Your task to perform on an android device: remove spam from my inbox in the gmail app Image 0: 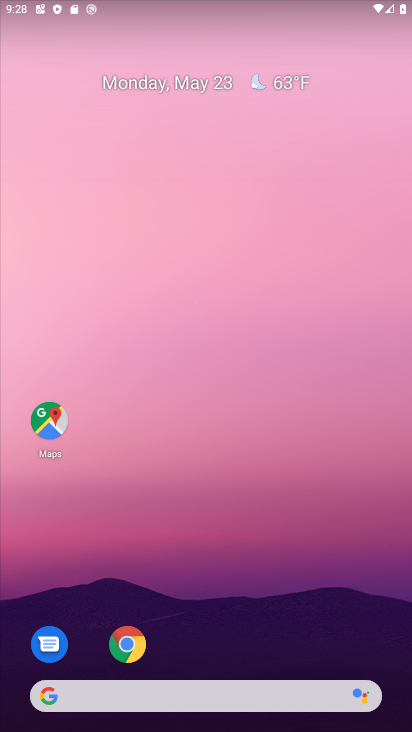
Step 0: press home button
Your task to perform on an android device: remove spam from my inbox in the gmail app Image 1: 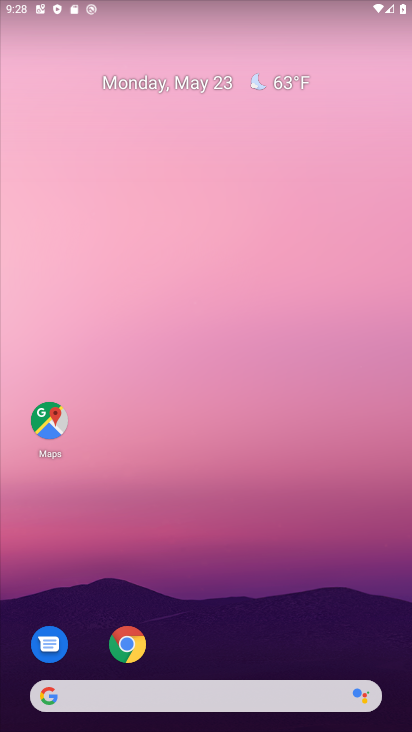
Step 1: drag from (224, 656) to (345, 102)
Your task to perform on an android device: remove spam from my inbox in the gmail app Image 2: 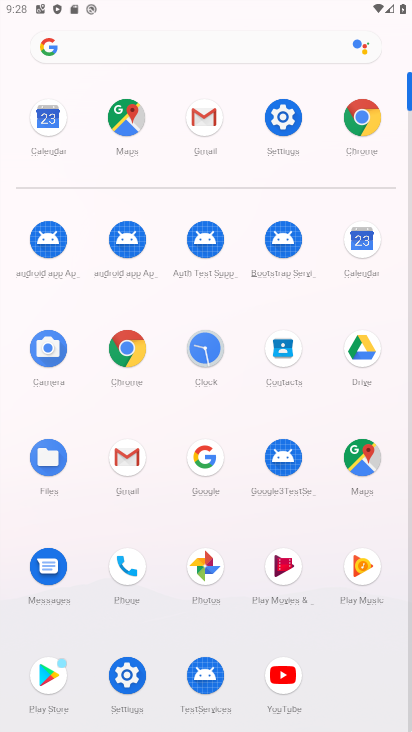
Step 2: click (198, 108)
Your task to perform on an android device: remove spam from my inbox in the gmail app Image 3: 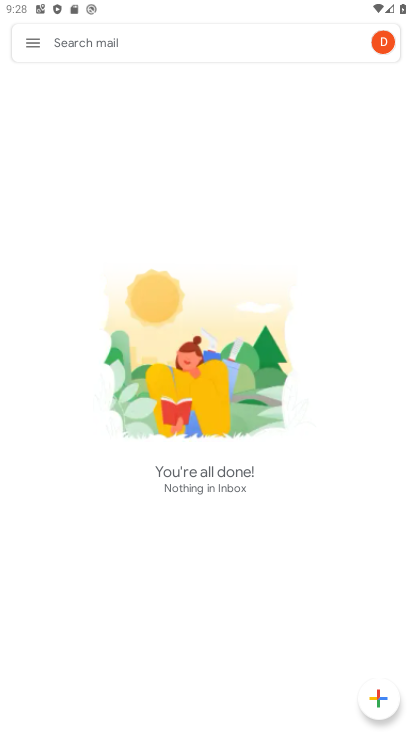
Step 3: click (31, 39)
Your task to perform on an android device: remove spam from my inbox in the gmail app Image 4: 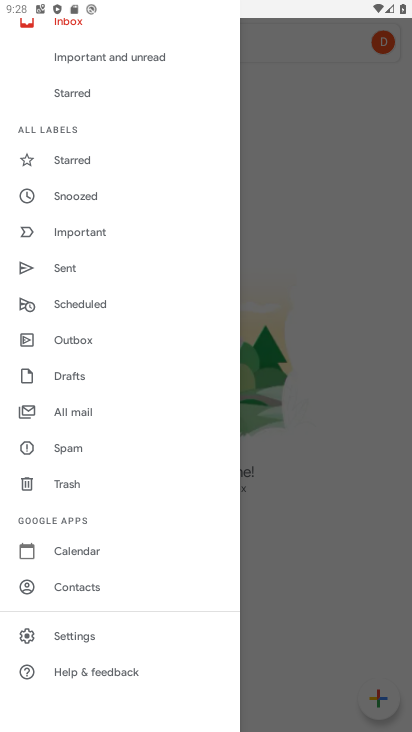
Step 4: click (35, 441)
Your task to perform on an android device: remove spam from my inbox in the gmail app Image 5: 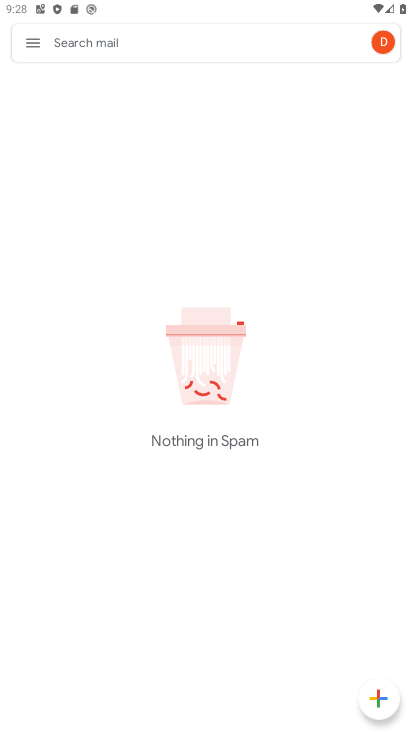
Step 5: task complete